Your task to perform on an android device: Is it going to rain today? Image 0: 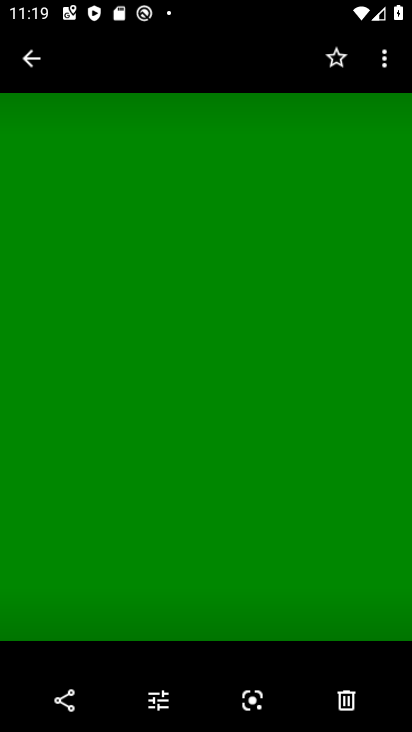
Step 0: press home button
Your task to perform on an android device: Is it going to rain today? Image 1: 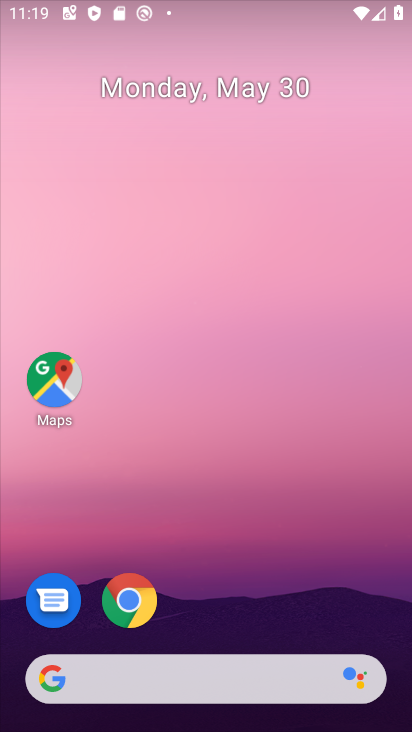
Step 1: drag from (232, 725) to (229, 11)
Your task to perform on an android device: Is it going to rain today? Image 2: 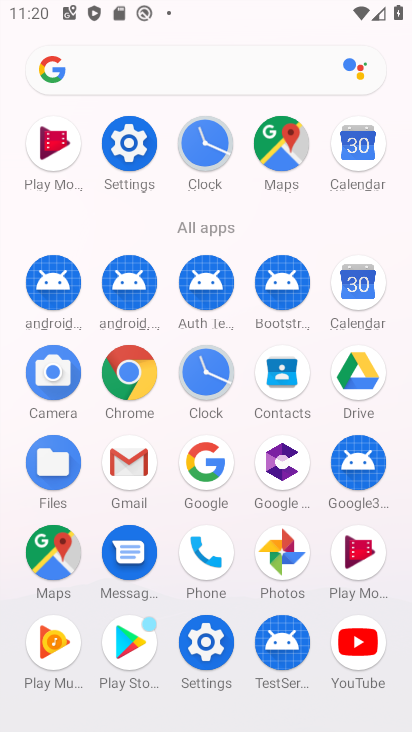
Step 2: click (209, 459)
Your task to perform on an android device: Is it going to rain today? Image 3: 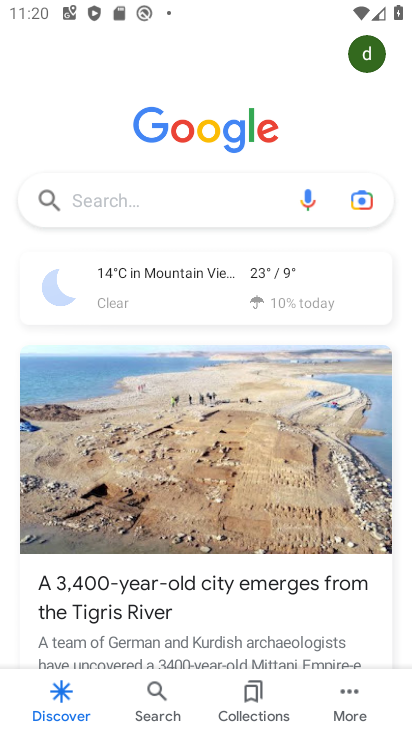
Step 3: click (150, 284)
Your task to perform on an android device: Is it going to rain today? Image 4: 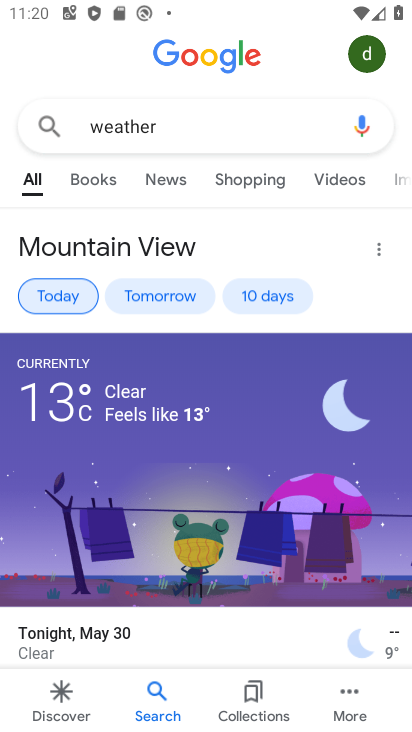
Step 4: click (67, 291)
Your task to perform on an android device: Is it going to rain today? Image 5: 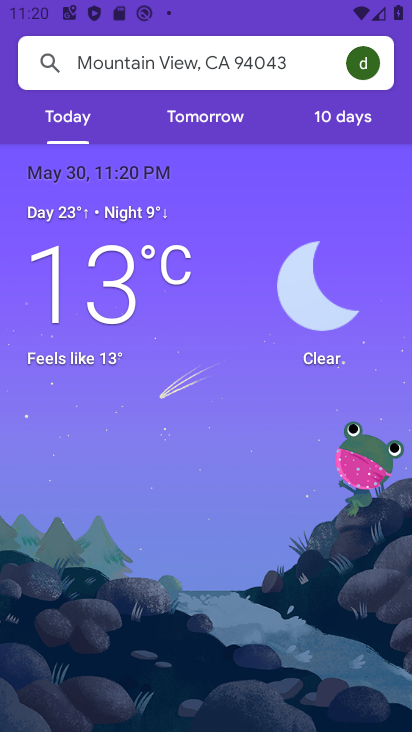
Step 5: task complete